Your task to perform on an android device: Open Chrome and go to settings Image 0: 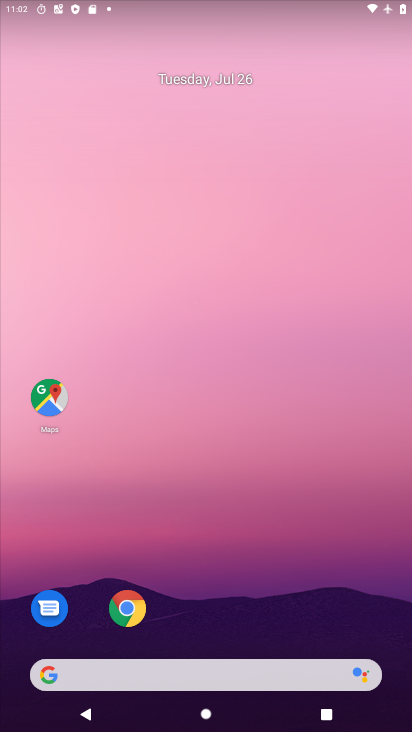
Step 0: click (124, 604)
Your task to perform on an android device: Open Chrome and go to settings Image 1: 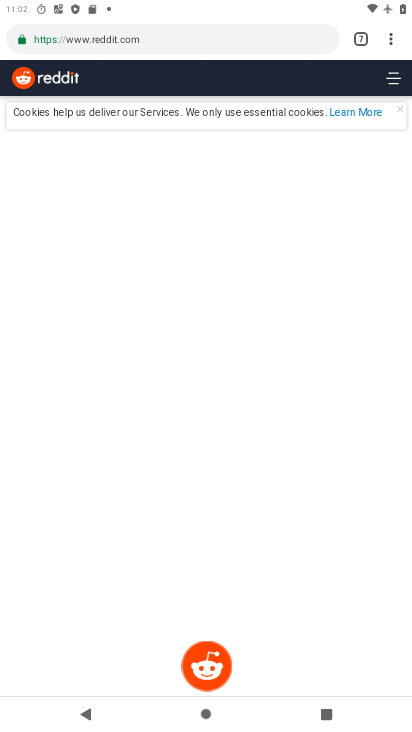
Step 1: click (386, 32)
Your task to perform on an android device: Open Chrome and go to settings Image 2: 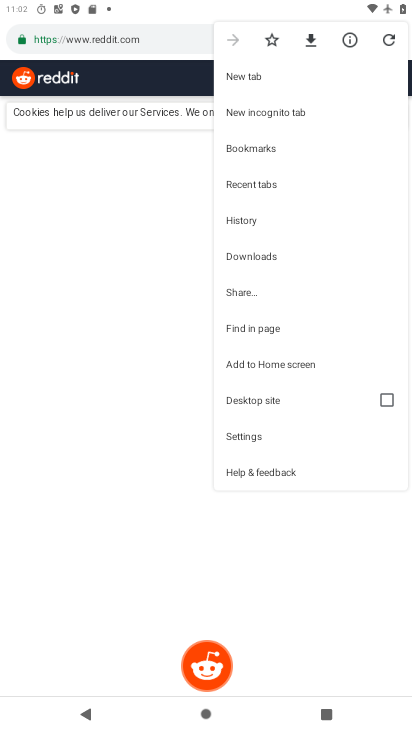
Step 2: click (250, 445)
Your task to perform on an android device: Open Chrome and go to settings Image 3: 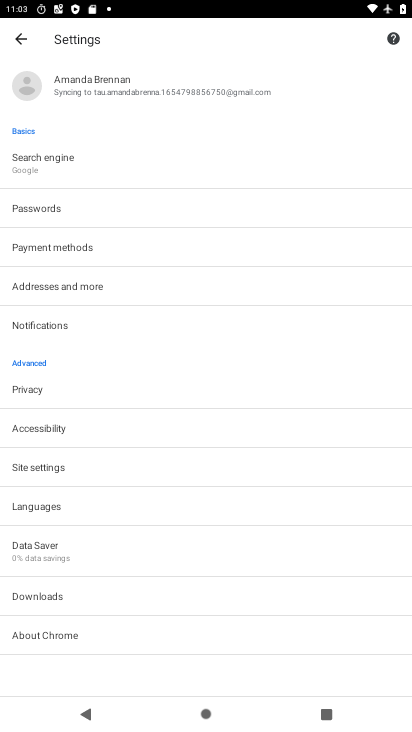
Step 3: task complete